Your task to perform on an android device: Go to wifi settings Image 0: 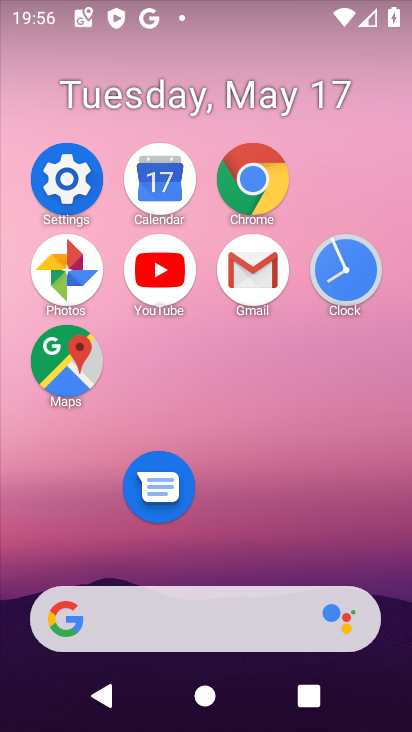
Step 0: click (93, 165)
Your task to perform on an android device: Go to wifi settings Image 1: 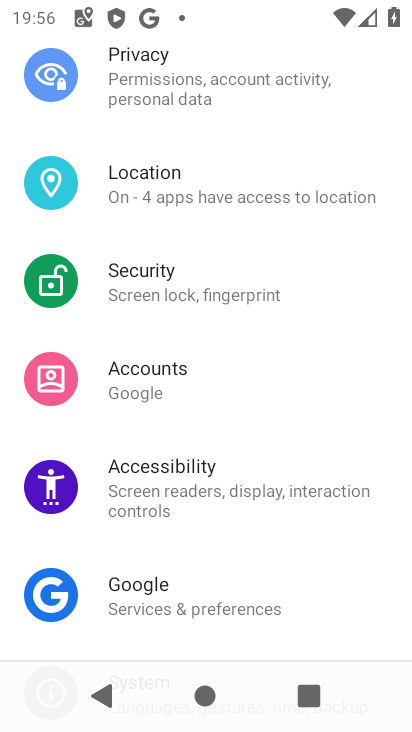
Step 1: drag from (284, 237) to (284, 586)
Your task to perform on an android device: Go to wifi settings Image 2: 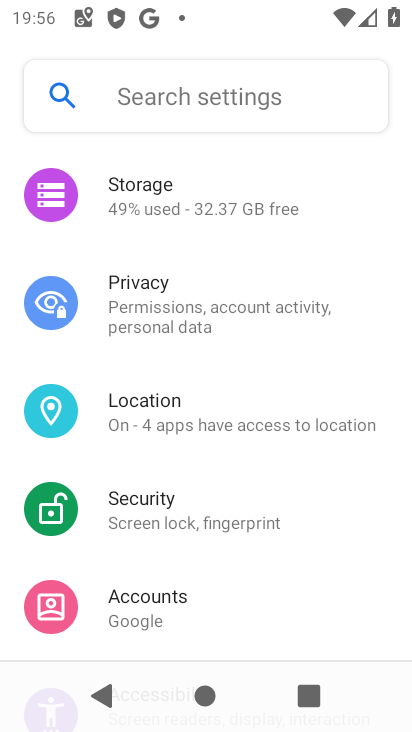
Step 2: drag from (282, 241) to (261, 579)
Your task to perform on an android device: Go to wifi settings Image 3: 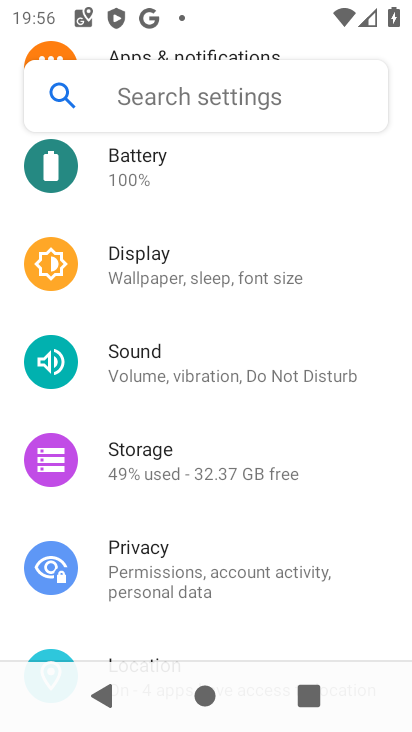
Step 3: drag from (273, 189) to (247, 523)
Your task to perform on an android device: Go to wifi settings Image 4: 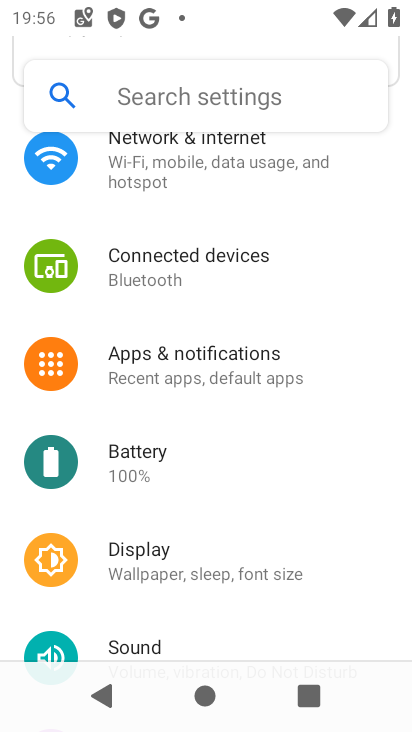
Step 4: click (257, 153)
Your task to perform on an android device: Go to wifi settings Image 5: 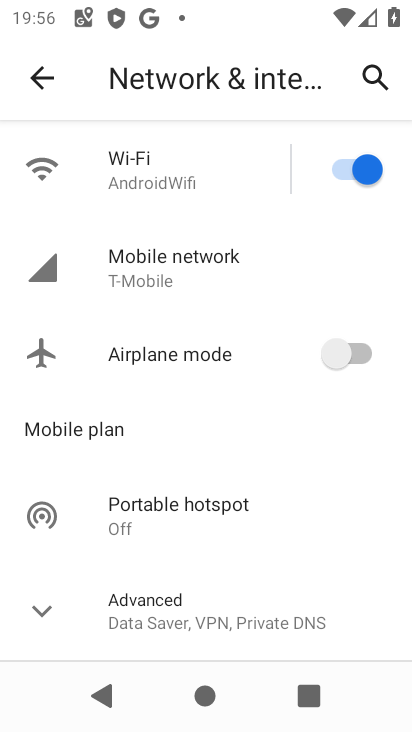
Step 5: click (208, 175)
Your task to perform on an android device: Go to wifi settings Image 6: 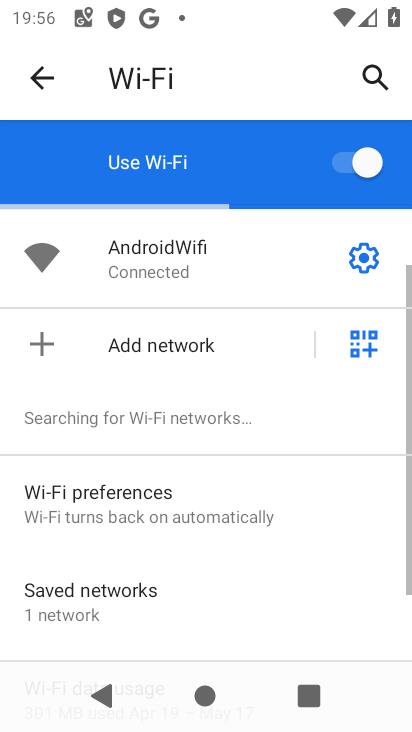
Step 6: click (367, 262)
Your task to perform on an android device: Go to wifi settings Image 7: 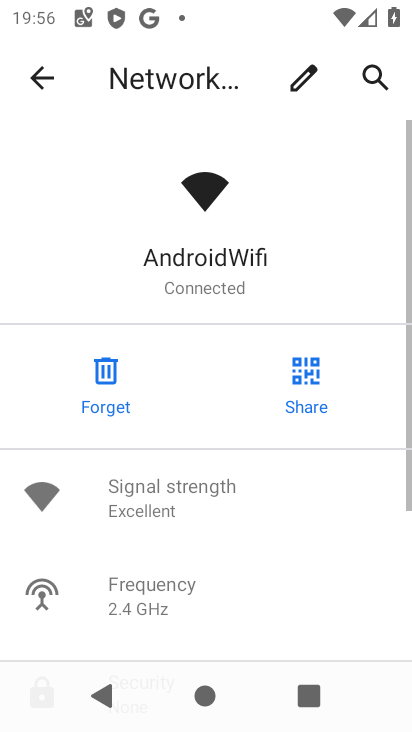
Step 7: task complete